Your task to perform on an android device: Open Chrome and go to settings Image 0: 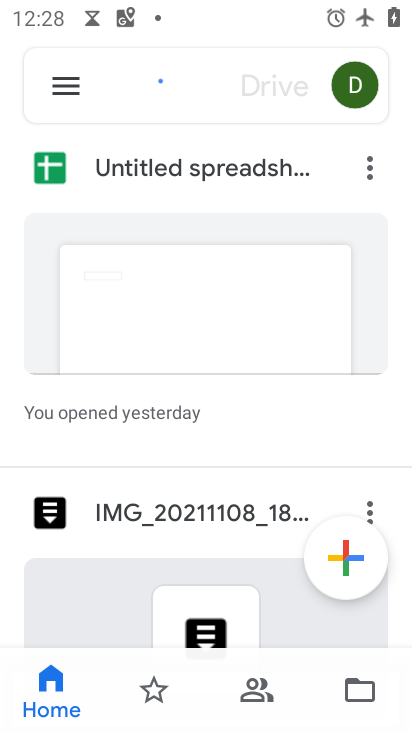
Step 0: press home button
Your task to perform on an android device: Open Chrome and go to settings Image 1: 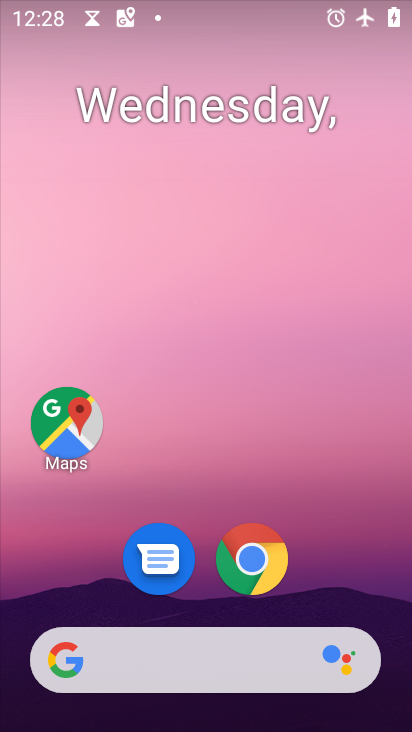
Step 1: drag from (326, 534) to (297, 27)
Your task to perform on an android device: Open Chrome and go to settings Image 2: 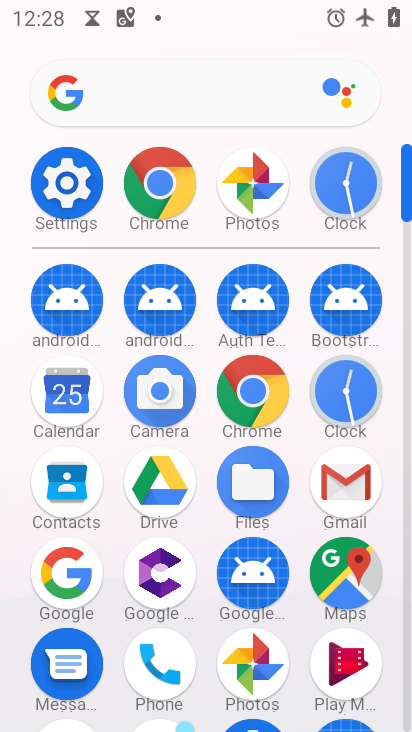
Step 2: click (156, 173)
Your task to perform on an android device: Open Chrome and go to settings Image 3: 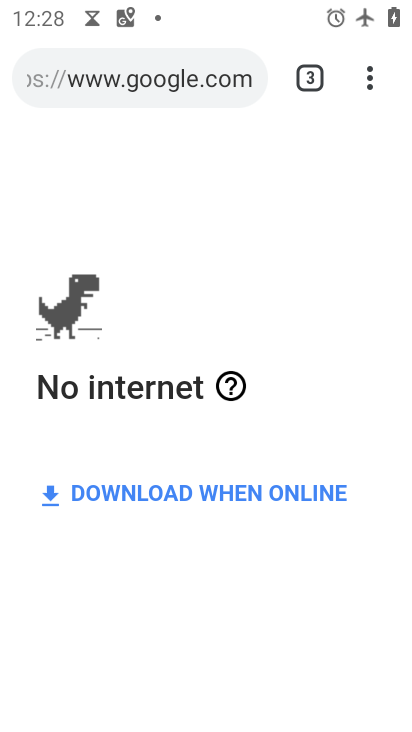
Step 3: task complete